Your task to perform on an android device: visit the assistant section in the google photos Image 0: 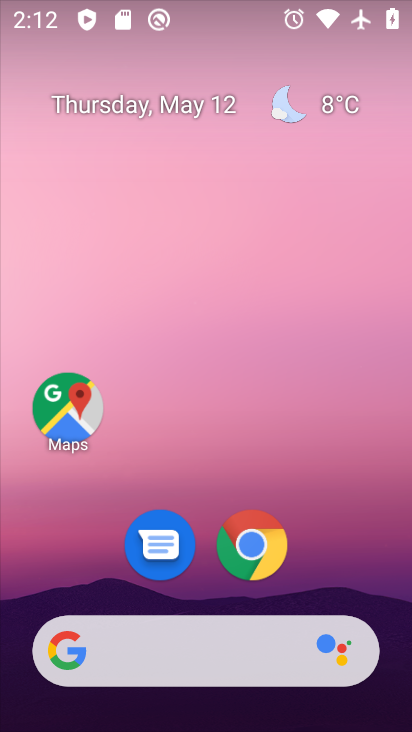
Step 0: drag from (397, 625) to (299, 142)
Your task to perform on an android device: visit the assistant section in the google photos Image 1: 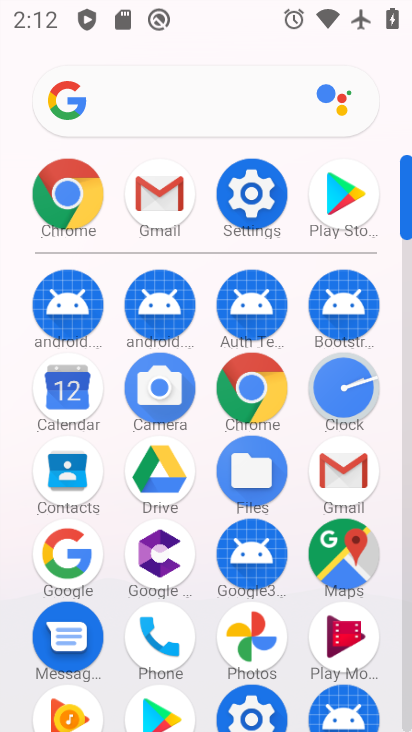
Step 1: click (407, 695)
Your task to perform on an android device: visit the assistant section in the google photos Image 2: 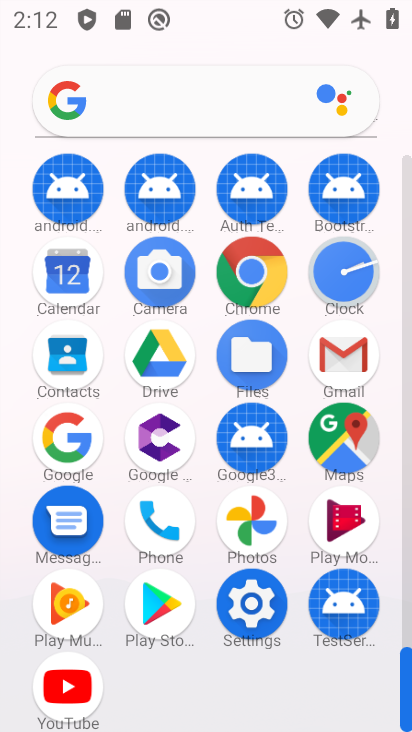
Step 2: click (250, 514)
Your task to perform on an android device: visit the assistant section in the google photos Image 3: 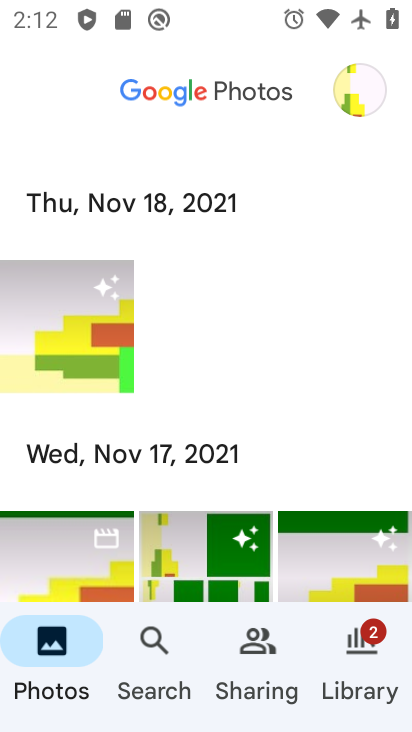
Step 3: click (368, 641)
Your task to perform on an android device: visit the assistant section in the google photos Image 4: 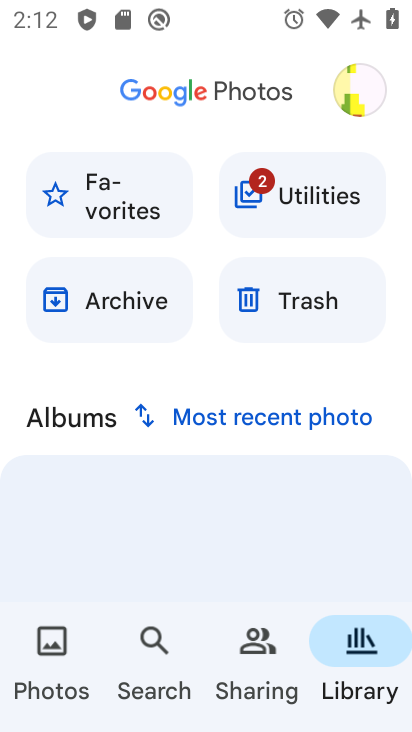
Step 4: task complete